Your task to perform on an android device: toggle data saver in the chrome app Image 0: 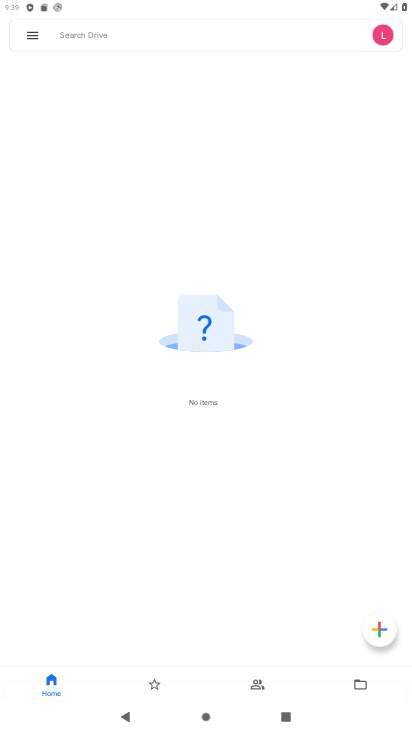
Step 0: press home button
Your task to perform on an android device: toggle data saver in the chrome app Image 1: 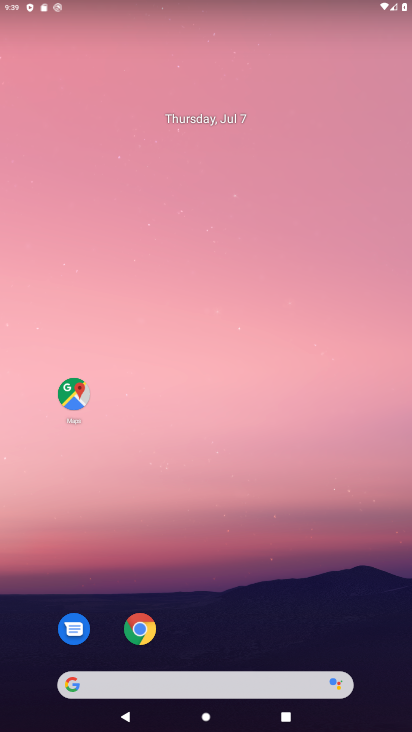
Step 1: click (141, 622)
Your task to perform on an android device: toggle data saver in the chrome app Image 2: 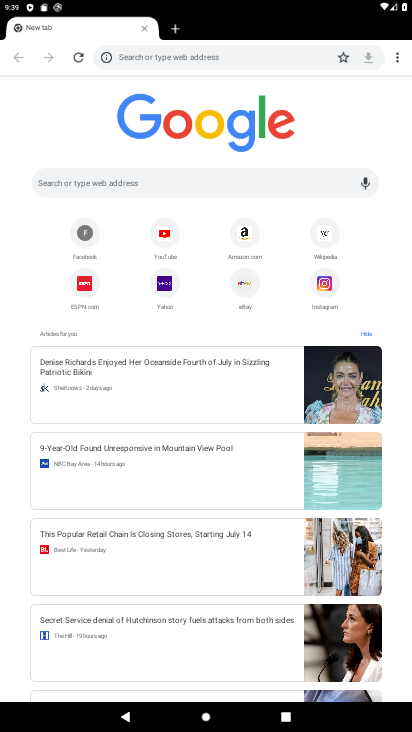
Step 2: click (395, 54)
Your task to perform on an android device: toggle data saver in the chrome app Image 3: 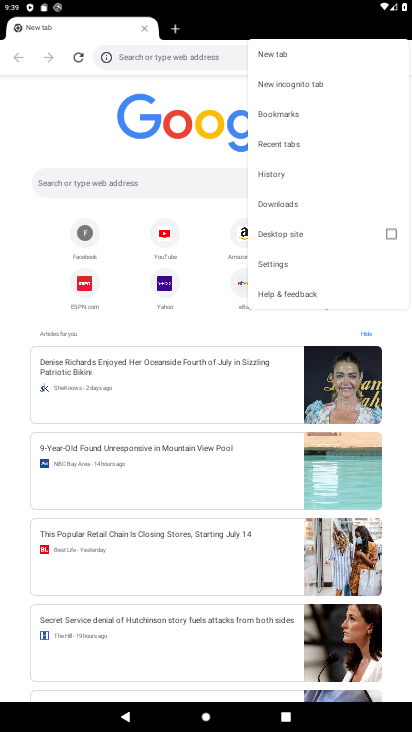
Step 3: click (276, 260)
Your task to perform on an android device: toggle data saver in the chrome app Image 4: 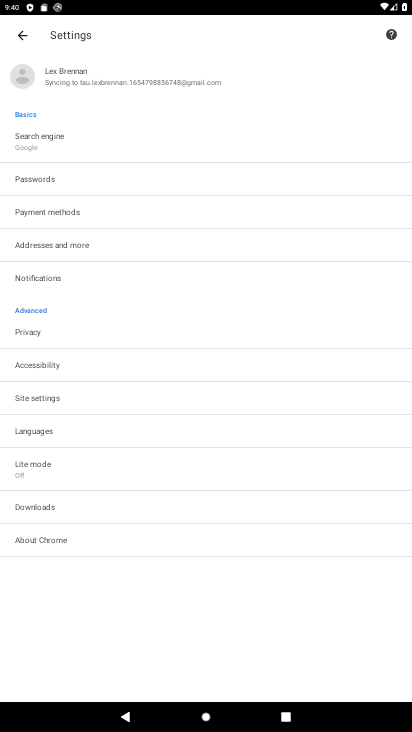
Step 4: click (52, 470)
Your task to perform on an android device: toggle data saver in the chrome app Image 5: 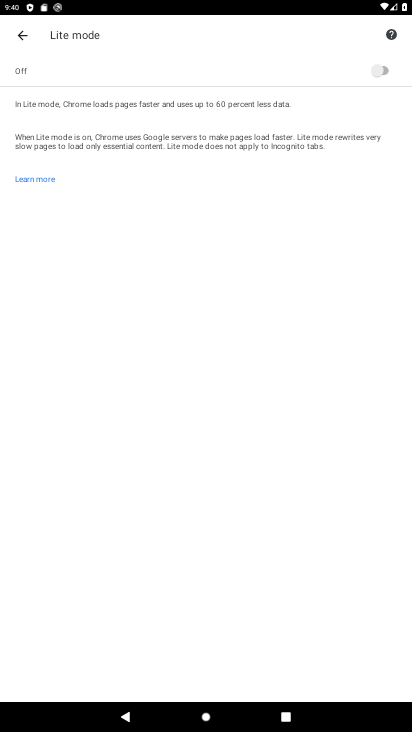
Step 5: click (372, 65)
Your task to perform on an android device: toggle data saver in the chrome app Image 6: 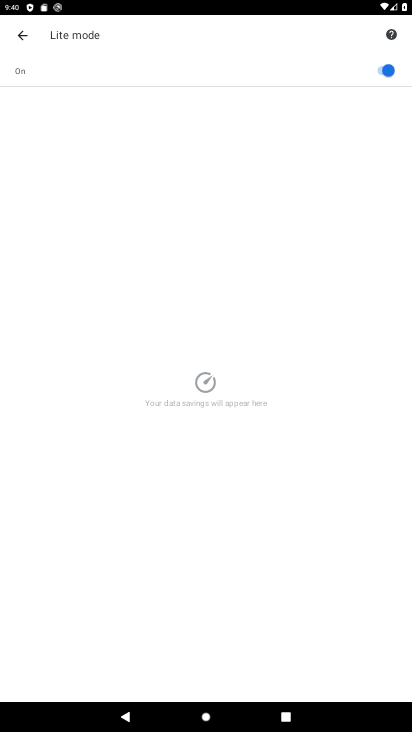
Step 6: task complete